Your task to perform on an android device: Go to display settings Image 0: 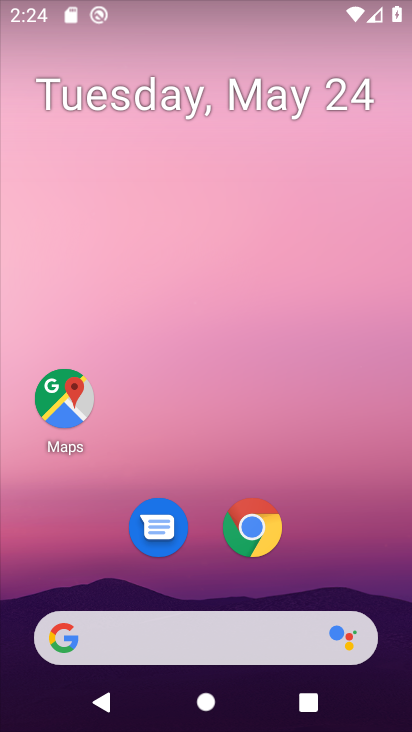
Step 0: drag from (339, 595) to (331, 4)
Your task to perform on an android device: Go to display settings Image 1: 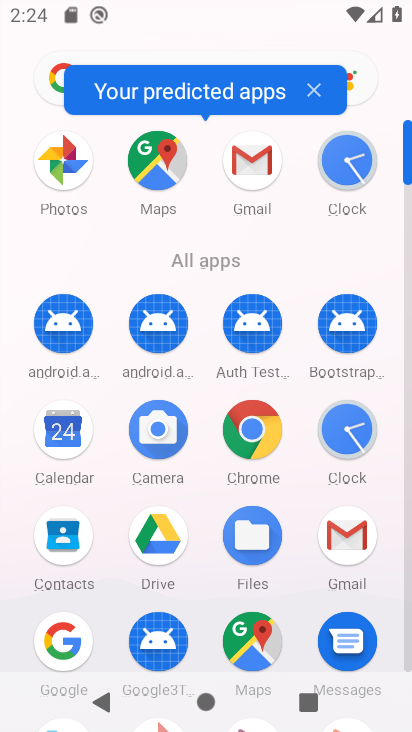
Step 1: click (408, 520)
Your task to perform on an android device: Go to display settings Image 2: 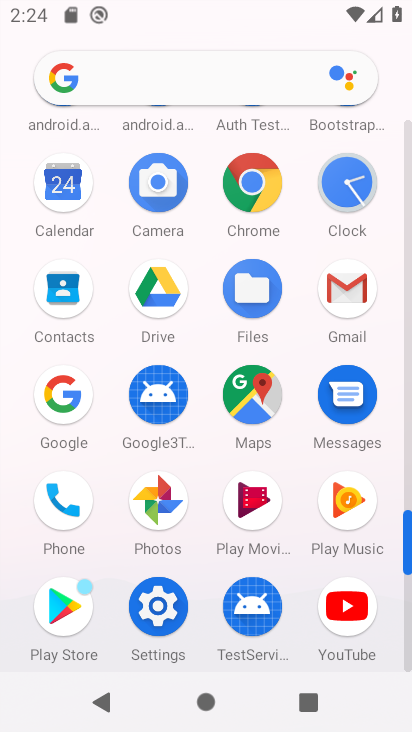
Step 2: click (158, 606)
Your task to perform on an android device: Go to display settings Image 3: 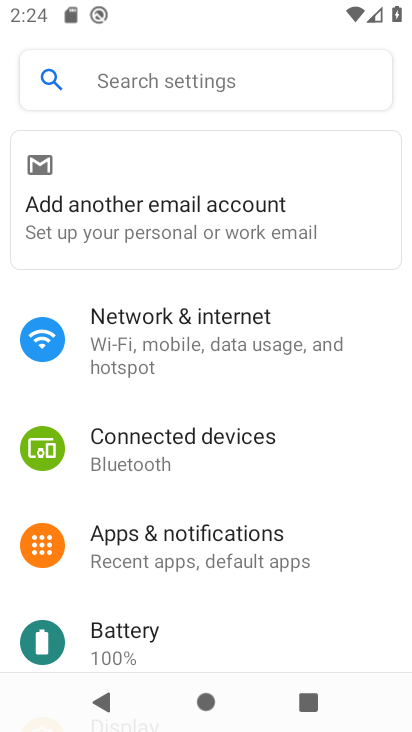
Step 3: drag from (347, 567) to (352, 252)
Your task to perform on an android device: Go to display settings Image 4: 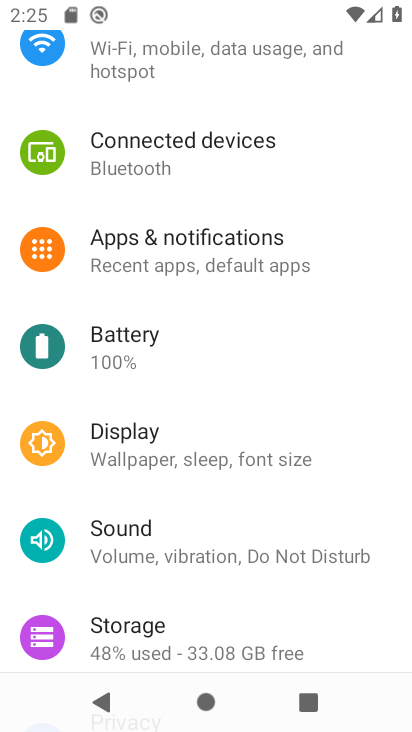
Step 4: click (121, 446)
Your task to perform on an android device: Go to display settings Image 5: 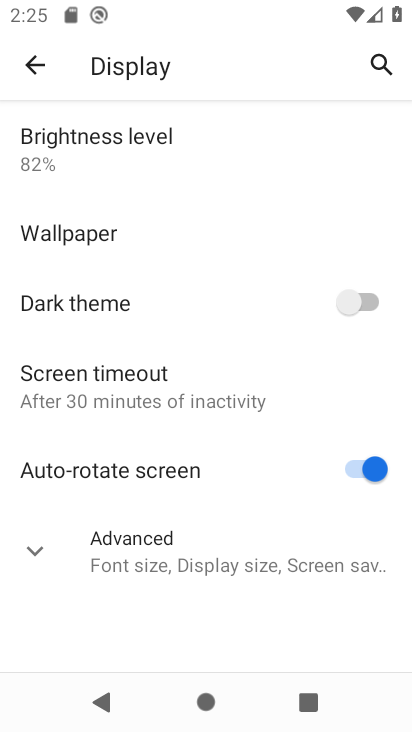
Step 5: task complete